Your task to perform on an android device: search for starred emails in the gmail app Image 0: 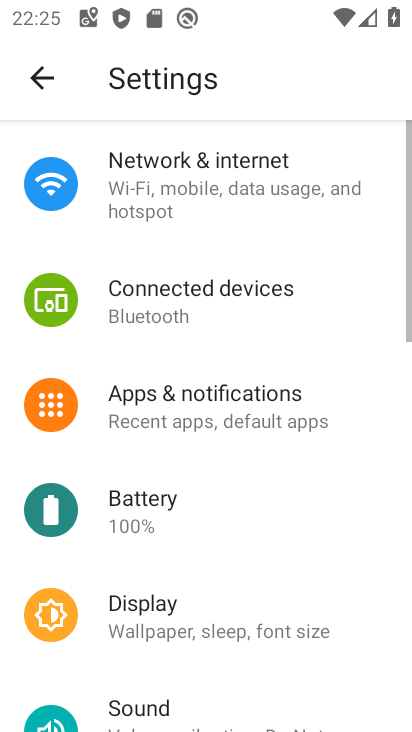
Step 0: press home button
Your task to perform on an android device: search for starred emails in the gmail app Image 1: 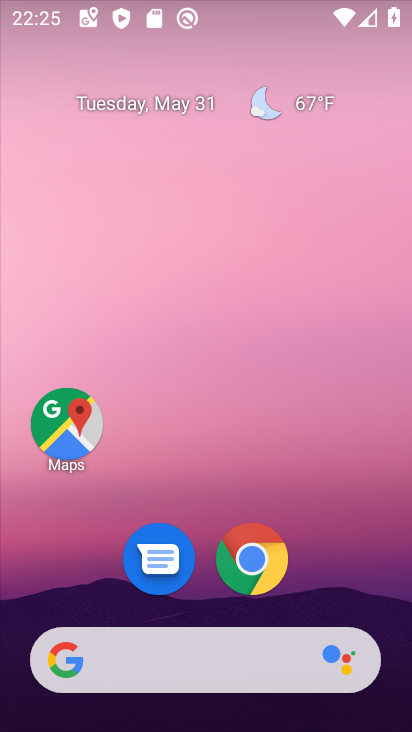
Step 1: drag from (324, 527) to (347, 75)
Your task to perform on an android device: search for starred emails in the gmail app Image 2: 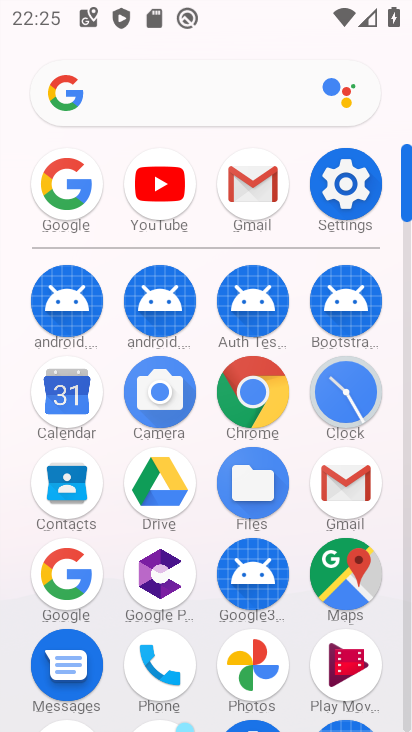
Step 2: click (261, 178)
Your task to perform on an android device: search for starred emails in the gmail app Image 3: 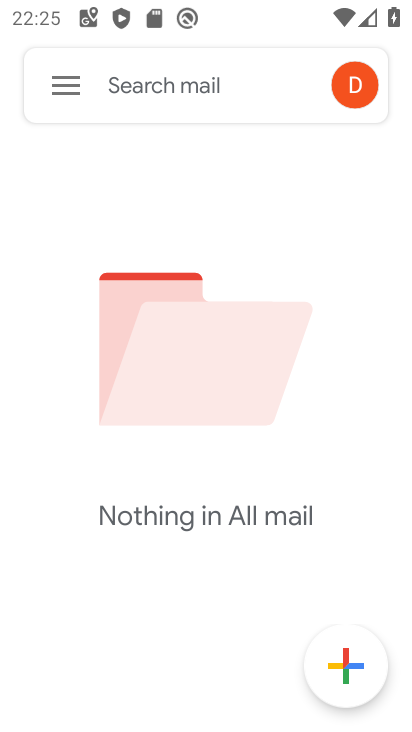
Step 3: click (66, 89)
Your task to perform on an android device: search for starred emails in the gmail app Image 4: 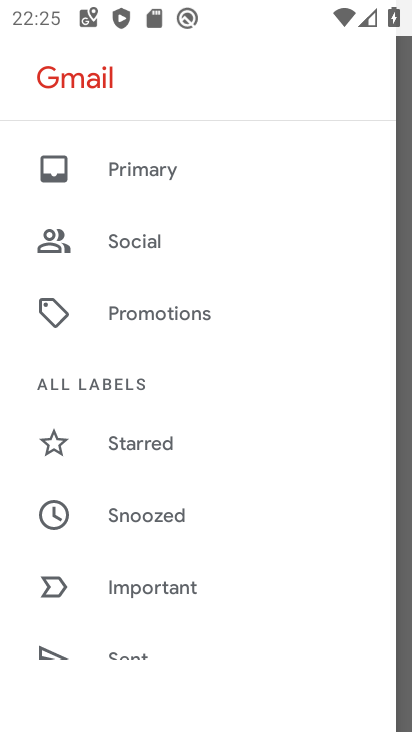
Step 4: click (177, 443)
Your task to perform on an android device: search for starred emails in the gmail app Image 5: 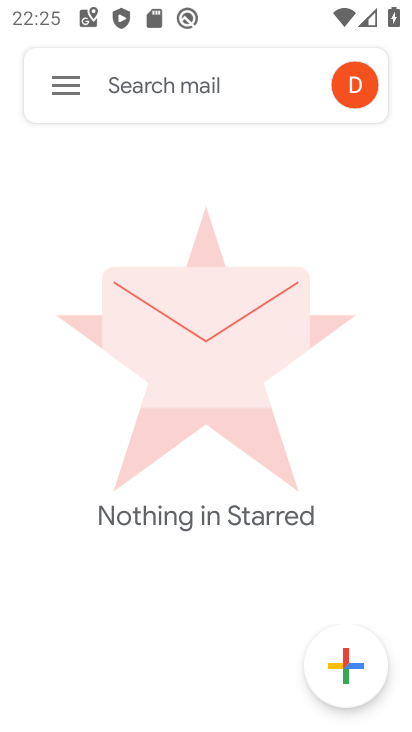
Step 5: task complete